Your task to perform on an android device: Go to display settings Image 0: 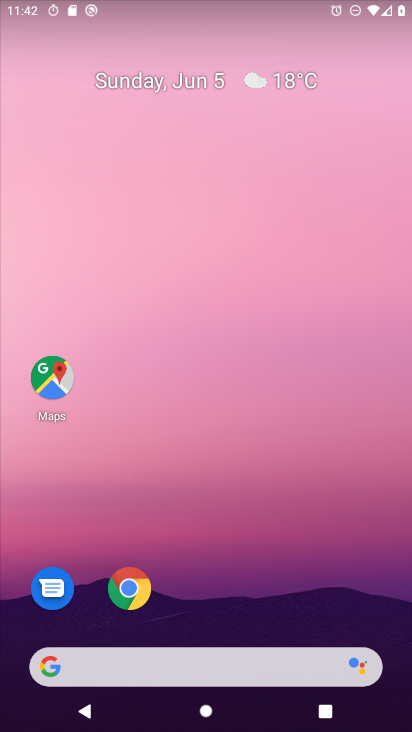
Step 0: drag from (358, 565) to (366, 215)
Your task to perform on an android device: Go to display settings Image 1: 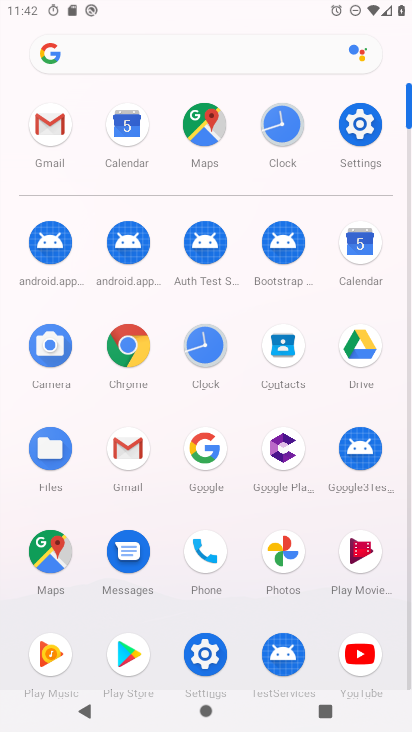
Step 1: click (366, 139)
Your task to perform on an android device: Go to display settings Image 2: 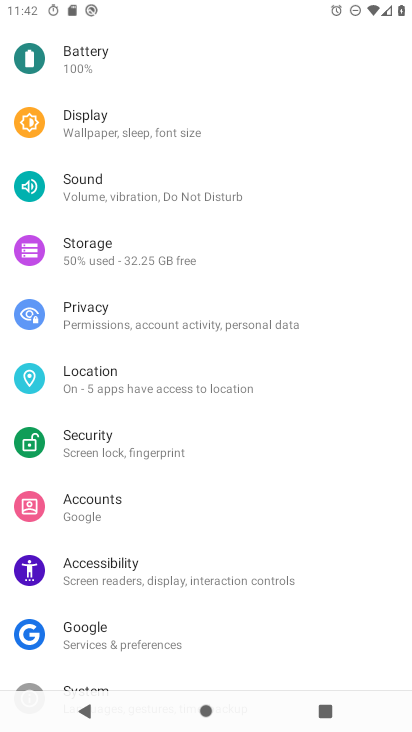
Step 2: drag from (346, 442) to (350, 327)
Your task to perform on an android device: Go to display settings Image 3: 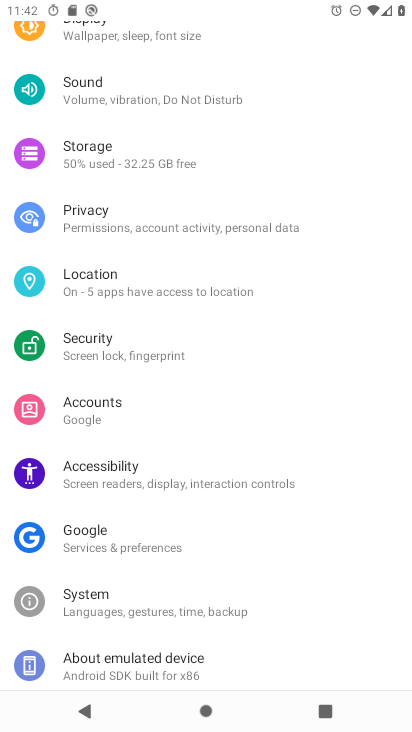
Step 3: drag from (358, 521) to (359, 361)
Your task to perform on an android device: Go to display settings Image 4: 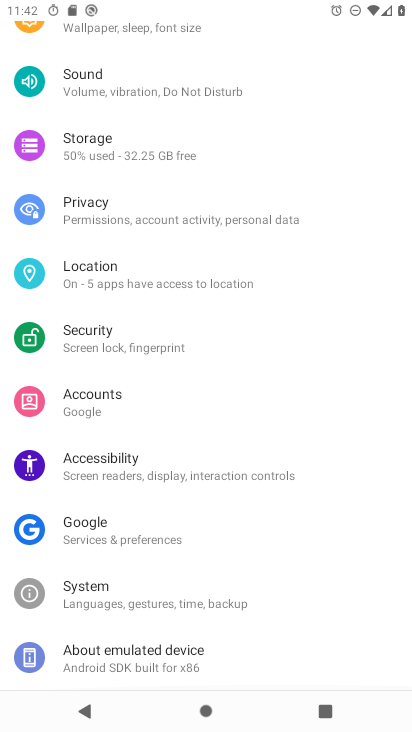
Step 4: drag from (364, 264) to (360, 349)
Your task to perform on an android device: Go to display settings Image 5: 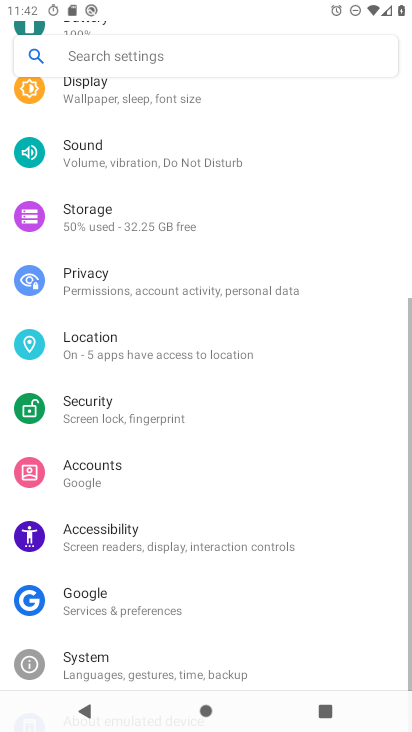
Step 5: drag from (362, 231) to (365, 324)
Your task to perform on an android device: Go to display settings Image 6: 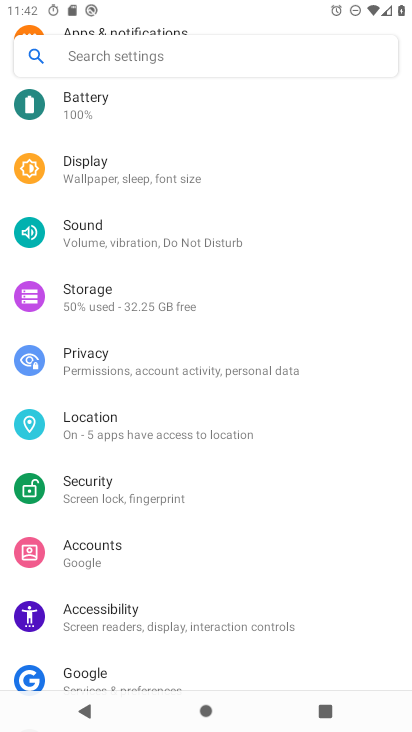
Step 6: drag from (357, 213) to (359, 326)
Your task to perform on an android device: Go to display settings Image 7: 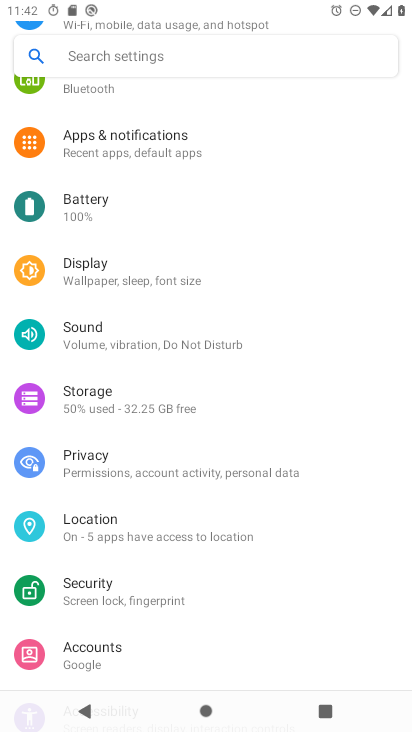
Step 7: drag from (352, 198) to (352, 423)
Your task to perform on an android device: Go to display settings Image 8: 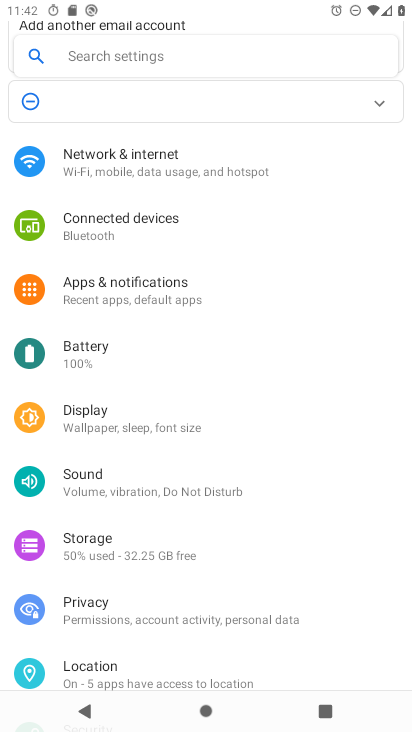
Step 8: click (241, 421)
Your task to perform on an android device: Go to display settings Image 9: 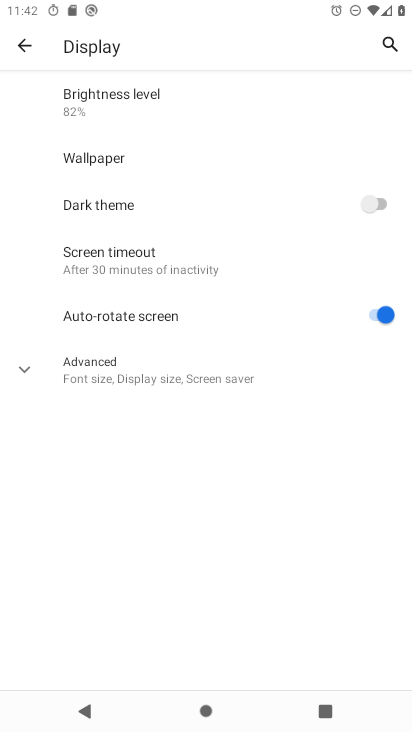
Step 9: task complete